Your task to perform on an android device: Open Google Chrome Image 0: 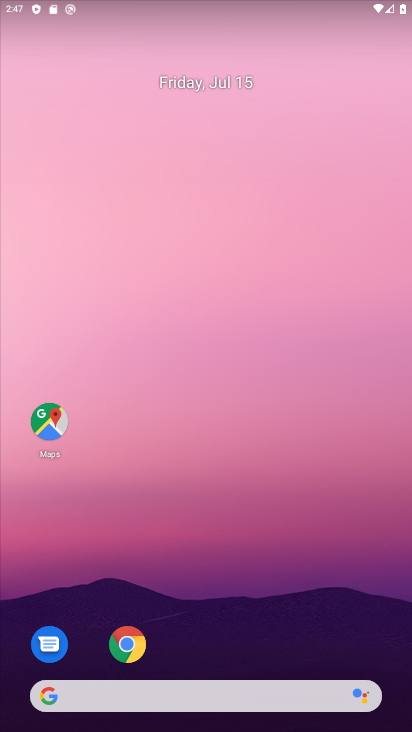
Step 0: click (126, 646)
Your task to perform on an android device: Open Google Chrome Image 1: 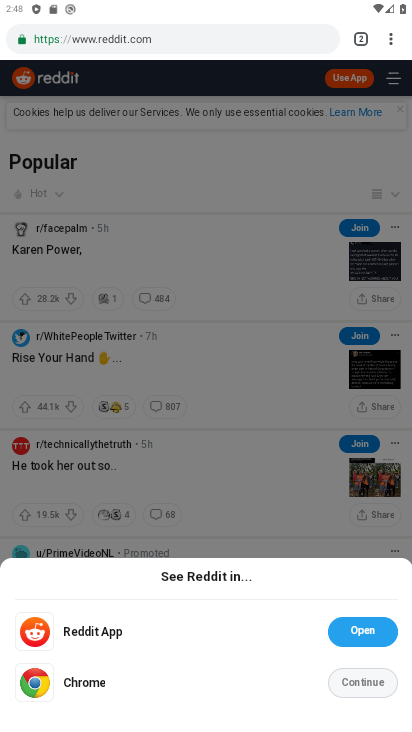
Step 1: task complete